Your task to perform on an android device: Go to accessibility settings Image 0: 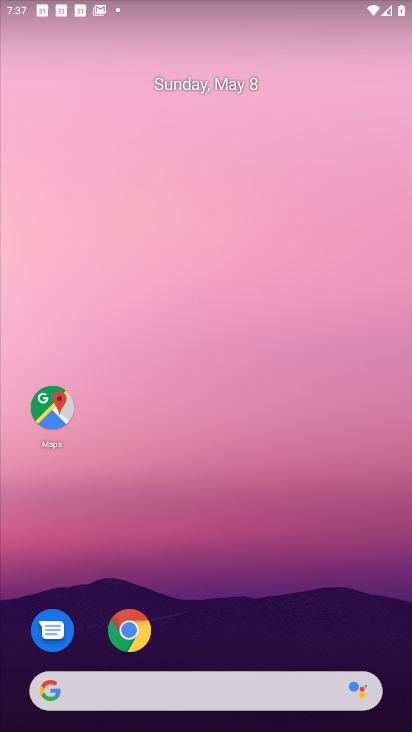
Step 0: drag from (206, 642) to (236, 183)
Your task to perform on an android device: Go to accessibility settings Image 1: 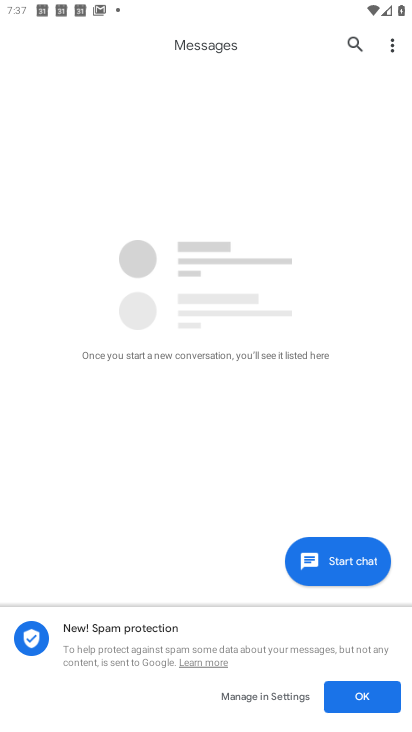
Step 1: press home button
Your task to perform on an android device: Go to accessibility settings Image 2: 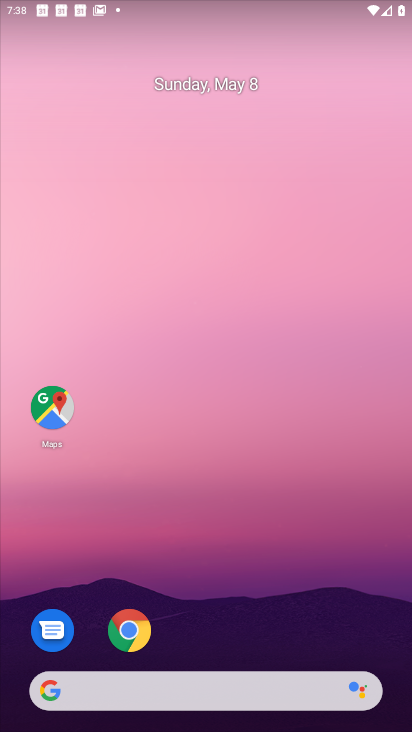
Step 2: drag from (168, 618) to (224, 371)
Your task to perform on an android device: Go to accessibility settings Image 3: 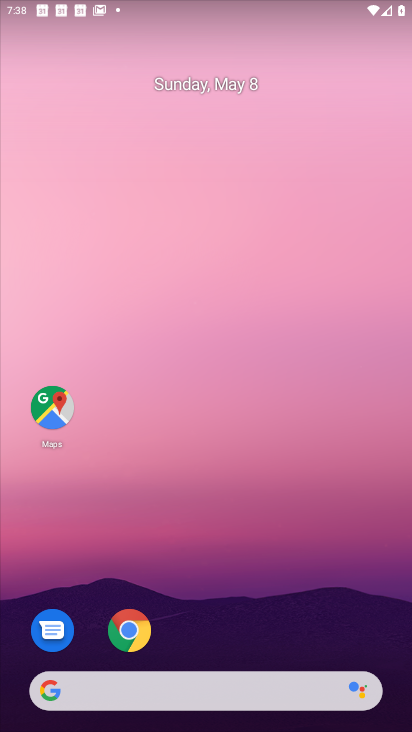
Step 3: drag from (255, 574) to (311, 0)
Your task to perform on an android device: Go to accessibility settings Image 4: 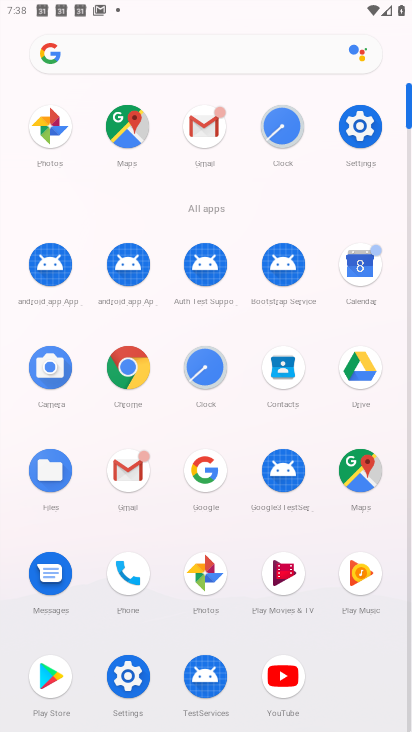
Step 4: click (354, 122)
Your task to perform on an android device: Go to accessibility settings Image 5: 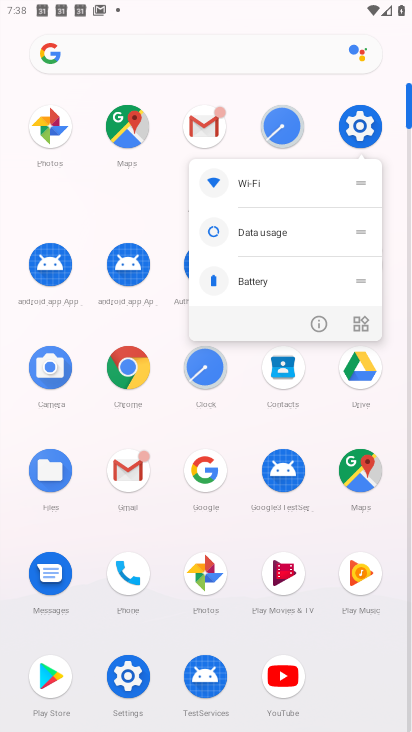
Step 5: click (318, 308)
Your task to perform on an android device: Go to accessibility settings Image 6: 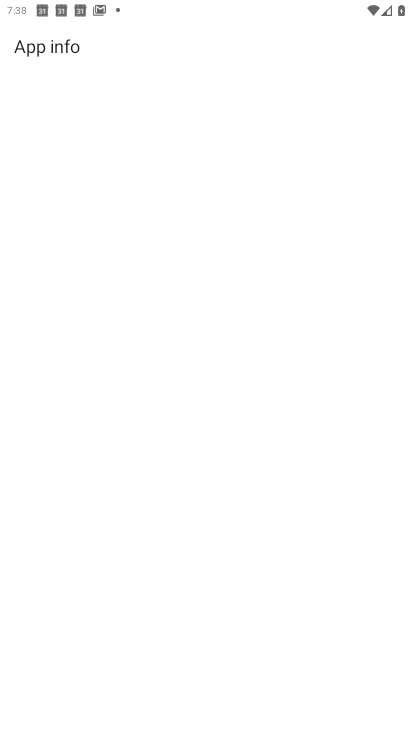
Step 6: drag from (201, 625) to (239, 137)
Your task to perform on an android device: Go to accessibility settings Image 7: 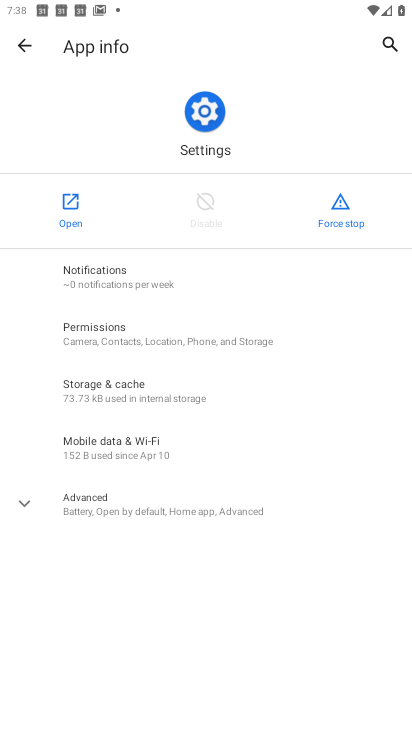
Step 7: click (59, 214)
Your task to perform on an android device: Go to accessibility settings Image 8: 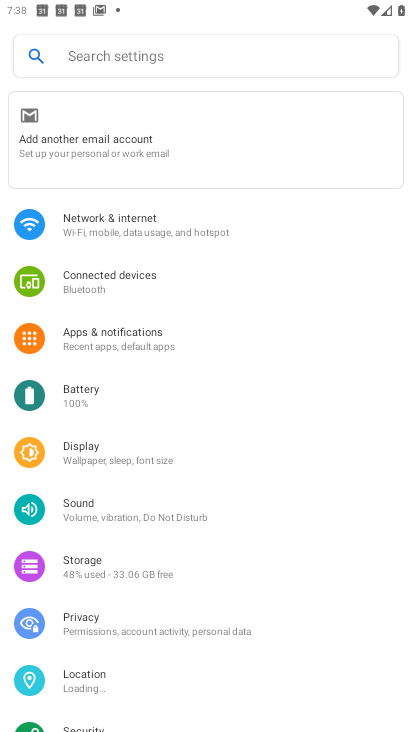
Step 8: drag from (173, 569) to (239, 163)
Your task to perform on an android device: Go to accessibility settings Image 9: 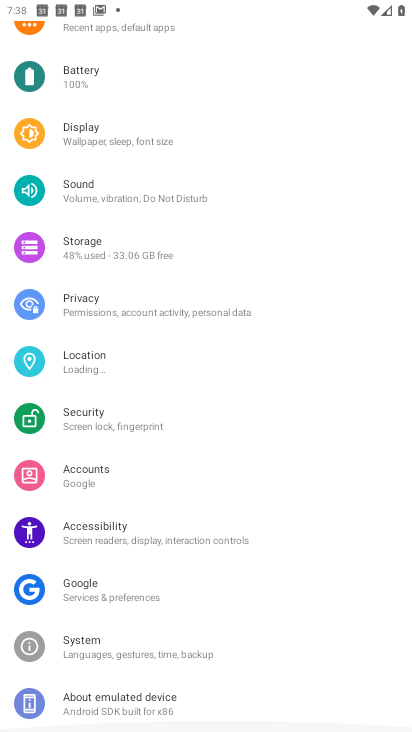
Step 9: click (217, 394)
Your task to perform on an android device: Go to accessibility settings Image 10: 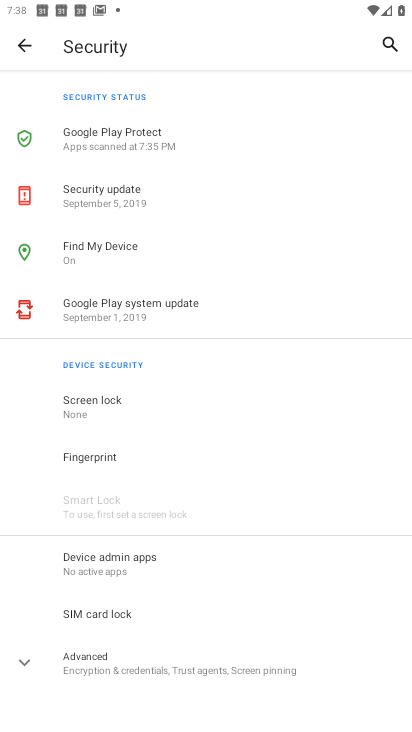
Step 10: drag from (214, 209) to (292, 653)
Your task to perform on an android device: Go to accessibility settings Image 11: 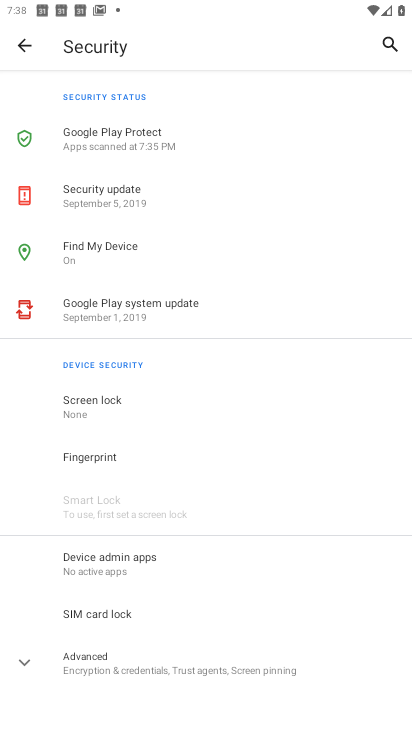
Step 11: drag from (254, 546) to (254, 614)
Your task to perform on an android device: Go to accessibility settings Image 12: 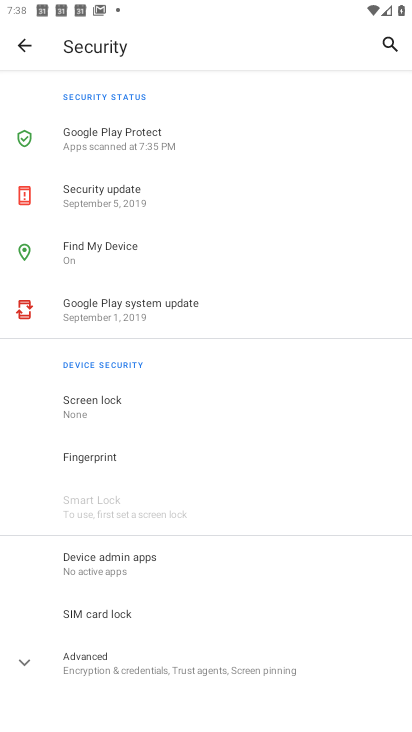
Step 12: drag from (252, 613) to (294, 275)
Your task to perform on an android device: Go to accessibility settings Image 13: 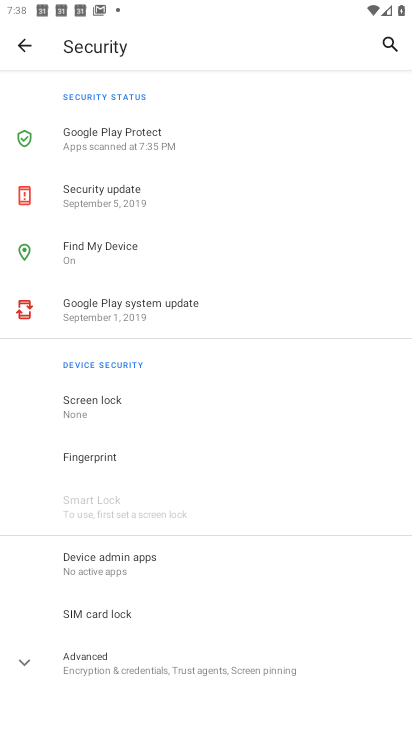
Step 13: click (21, 41)
Your task to perform on an android device: Go to accessibility settings Image 14: 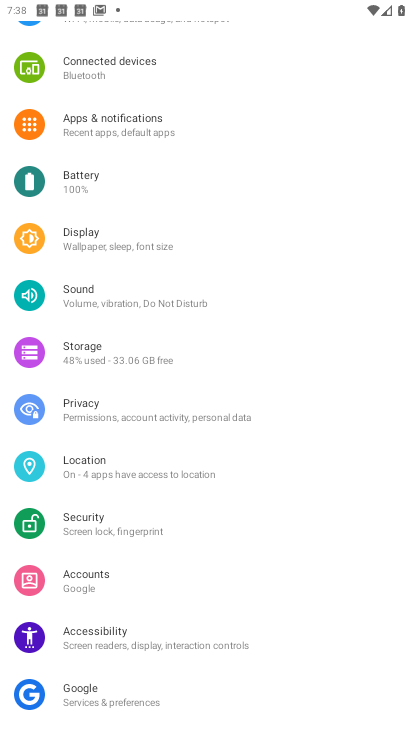
Step 14: click (156, 634)
Your task to perform on an android device: Go to accessibility settings Image 15: 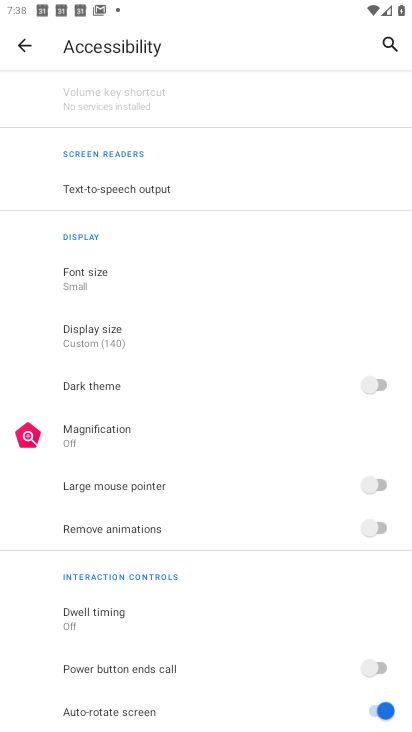
Step 15: task complete